Your task to perform on an android device: Go to display settings Image 0: 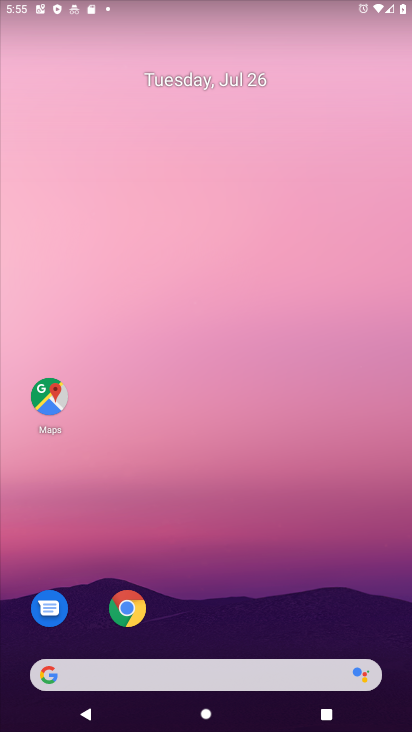
Step 0: press home button
Your task to perform on an android device: Go to display settings Image 1: 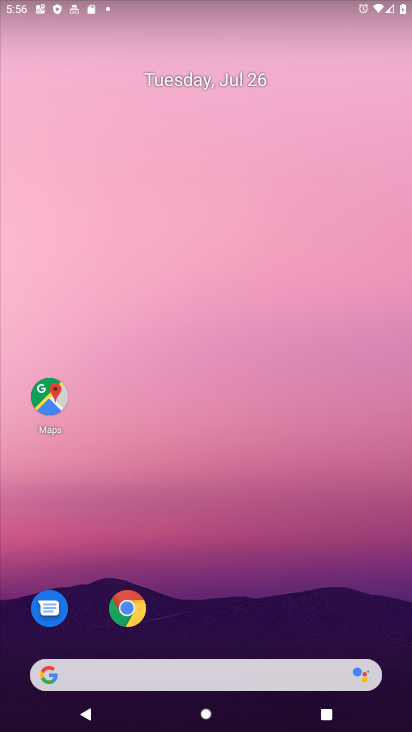
Step 1: drag from (229, 631) to (352, 82)
Your task to perform on an android device: Go to display settings Image 2: 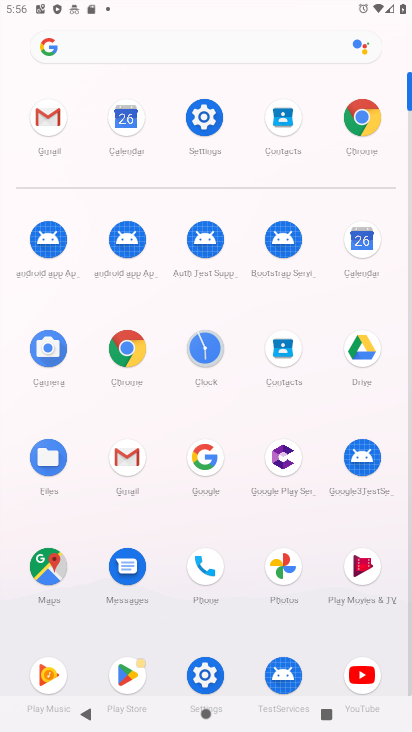
Step 2: click (204, 126)
Your task to perform on an android device: Go to display settings Image 3: 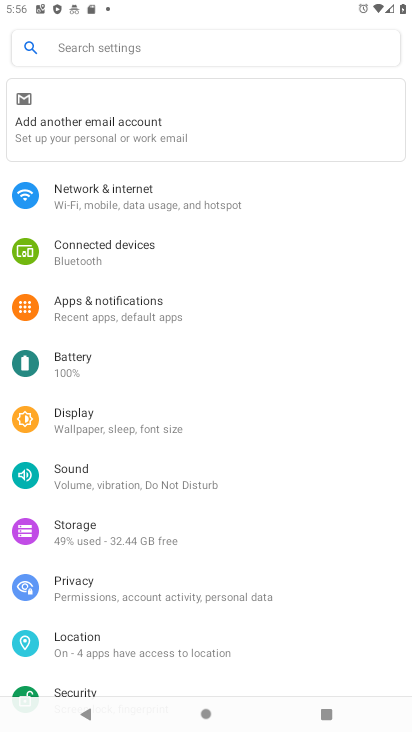
Step 3: click (74, 420)
Your task to perform on an android device: Go to display settings Image 4: 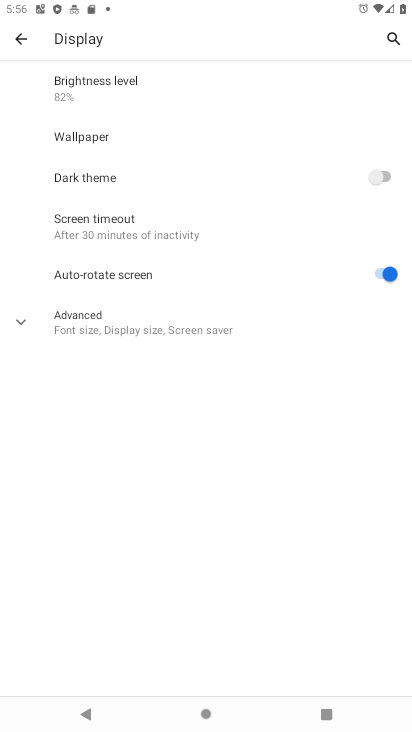
Step 4: task complete